Your task to perform on an android device: Search for Mexican restaurants on Maps Image 0: 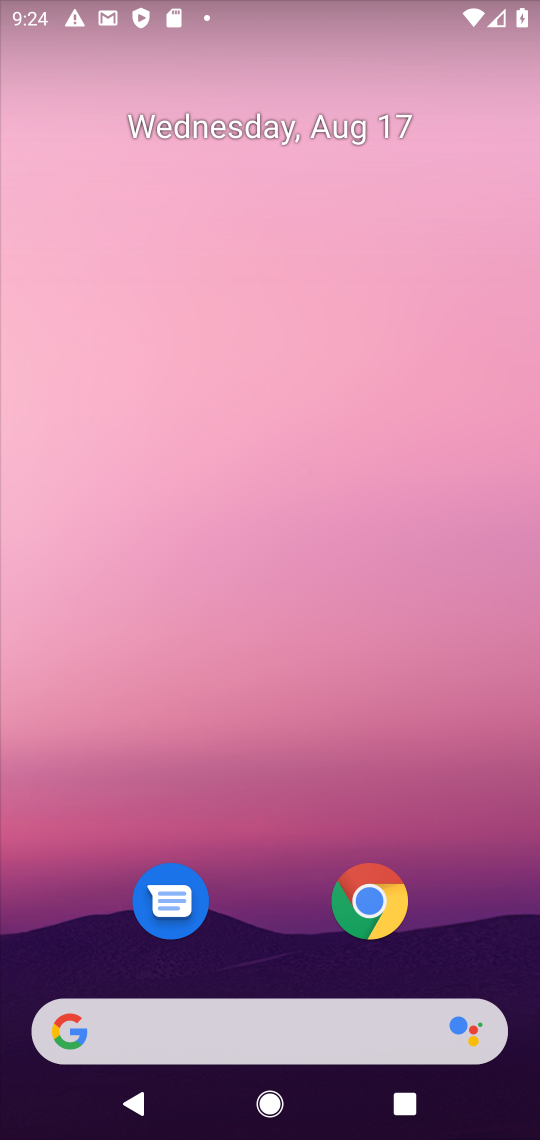
Step 0: drag from (265, 918) to (300, 254)
Your task to perform on an android device: Search for Mexican restaurants on Maps Image 1: 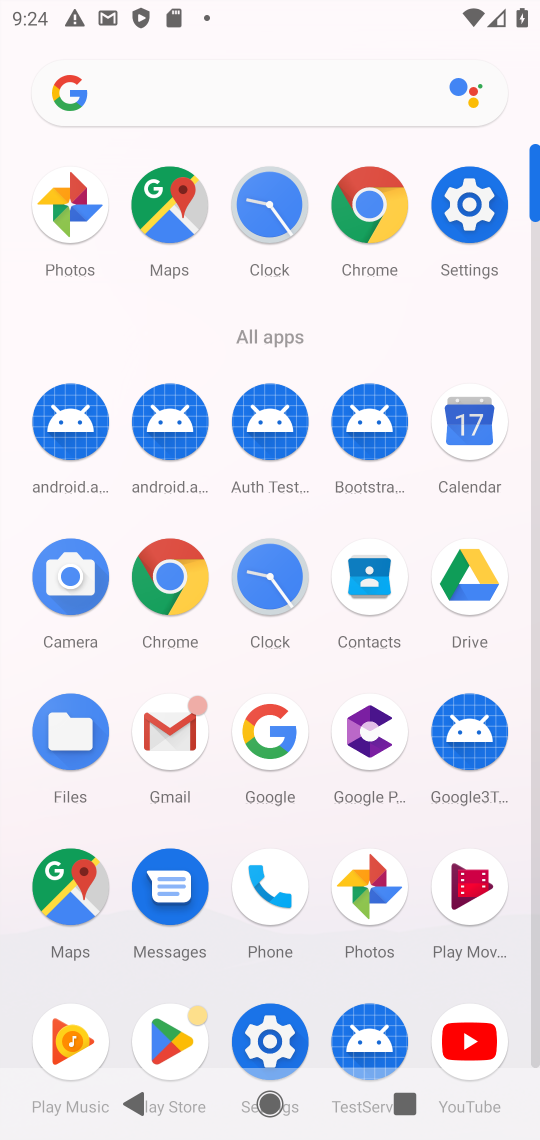
Step 1: click (169, 589)
Your task to perform on an android device: Search for Mexican restaurants on Maps Image 2: 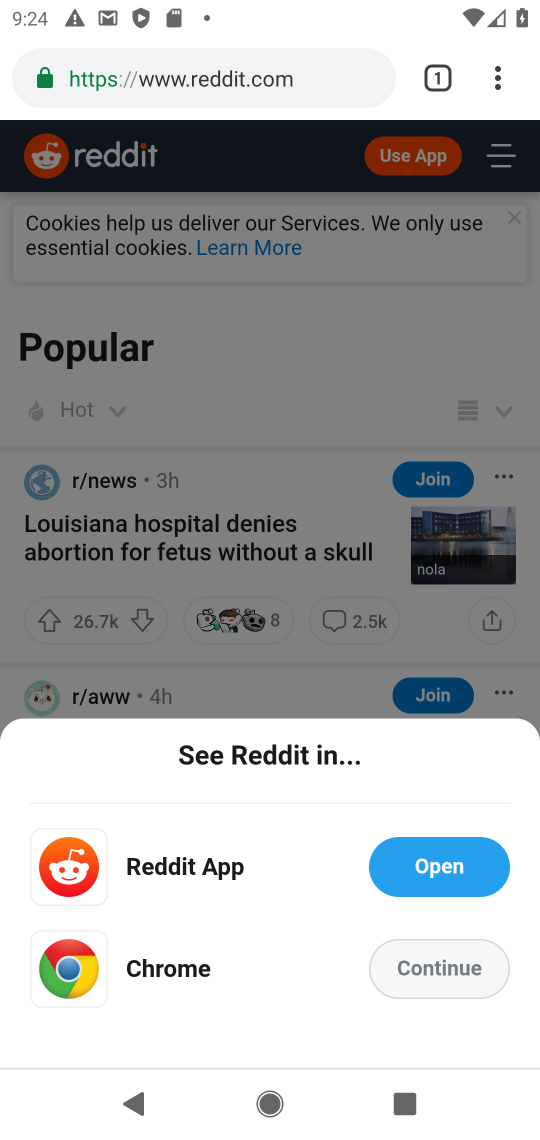
Step 2: press home button
Your task to perform on an android device: Search for Mexican restaurants on Maps Image 3: 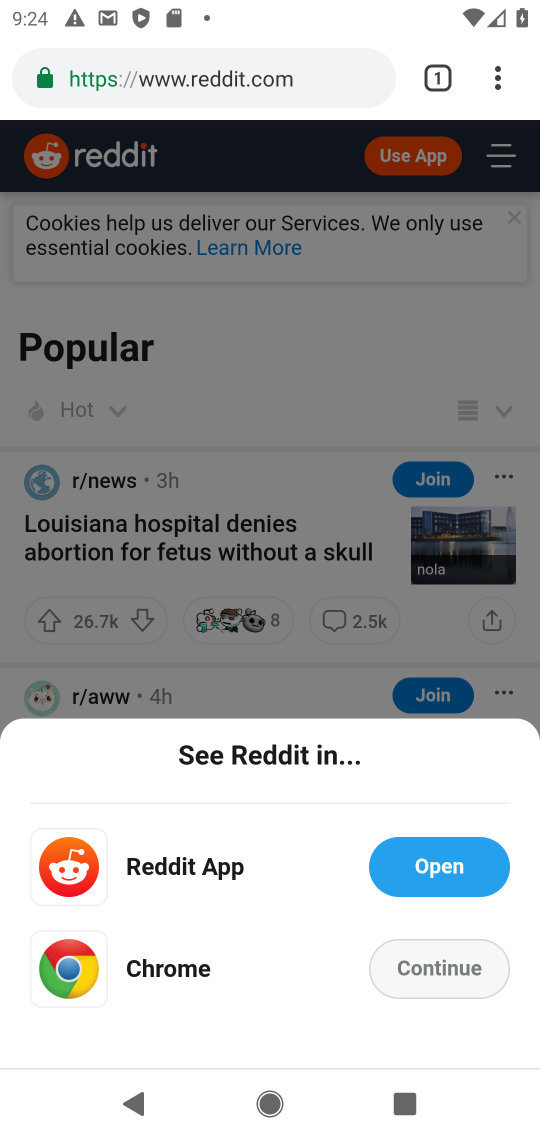
Step 3: press home button
Your task to perform on an android device: Search for Mexican restaurants on Maps Image 4: 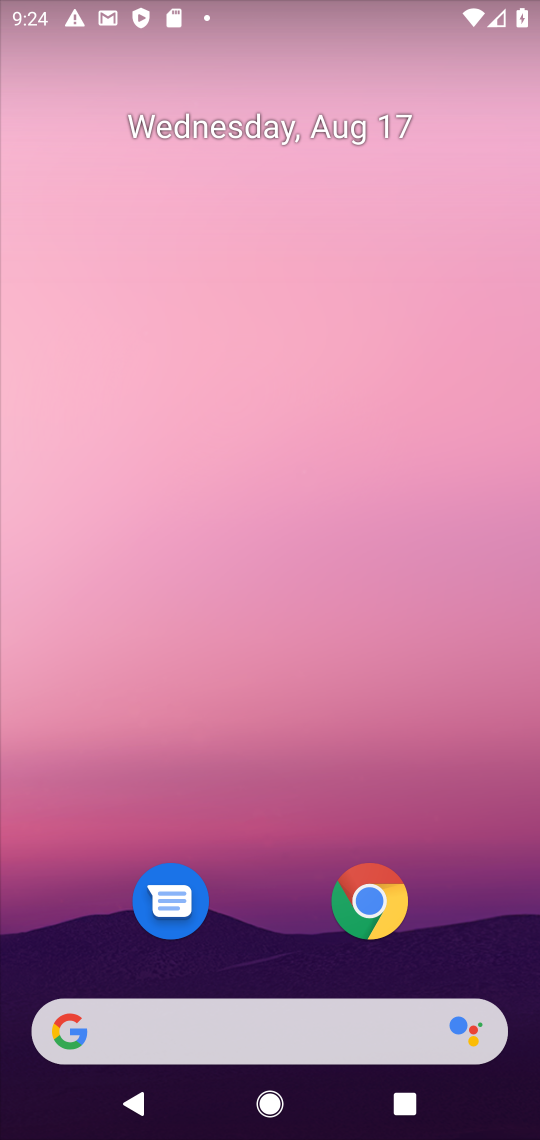
Step 4: press home button
Your task to perform on an android device: Search for Mexican restaurants on Maps Image 5: 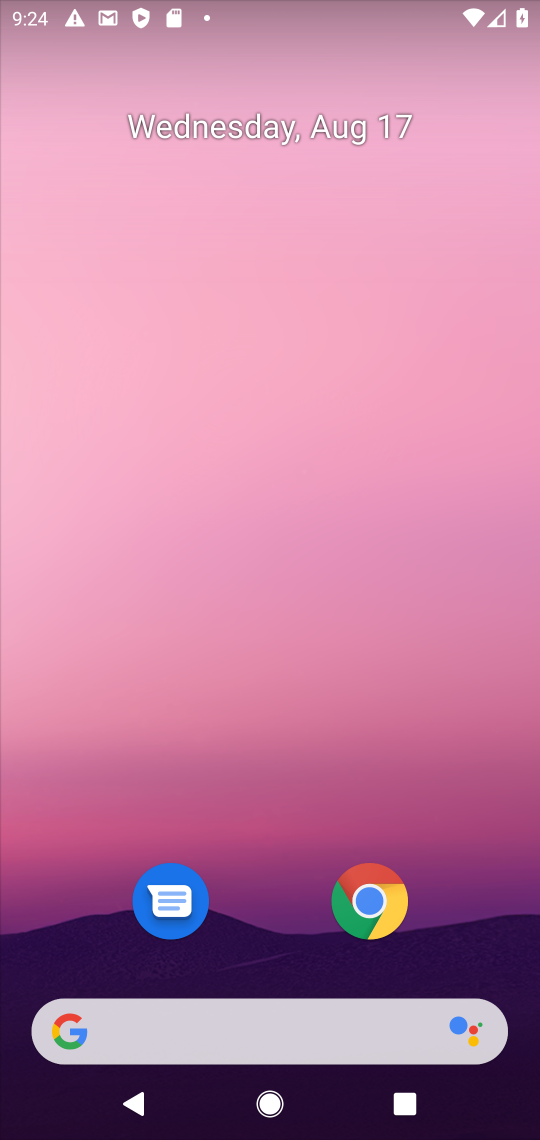
Step 5: drag from (263, 807) to (333, 48)
Your task to perform on an android device: Search for Mexican restaurants on Maps Image 6: 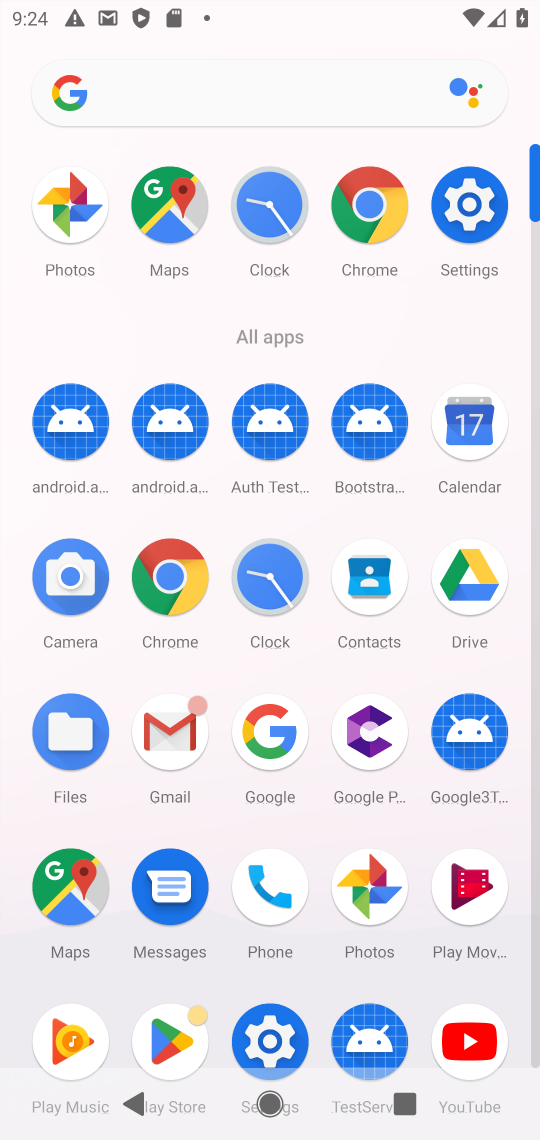
Step 6: click (63, 902)
Your task to perform on an android device: Search for Mexican restaurants on Maps Image 7: 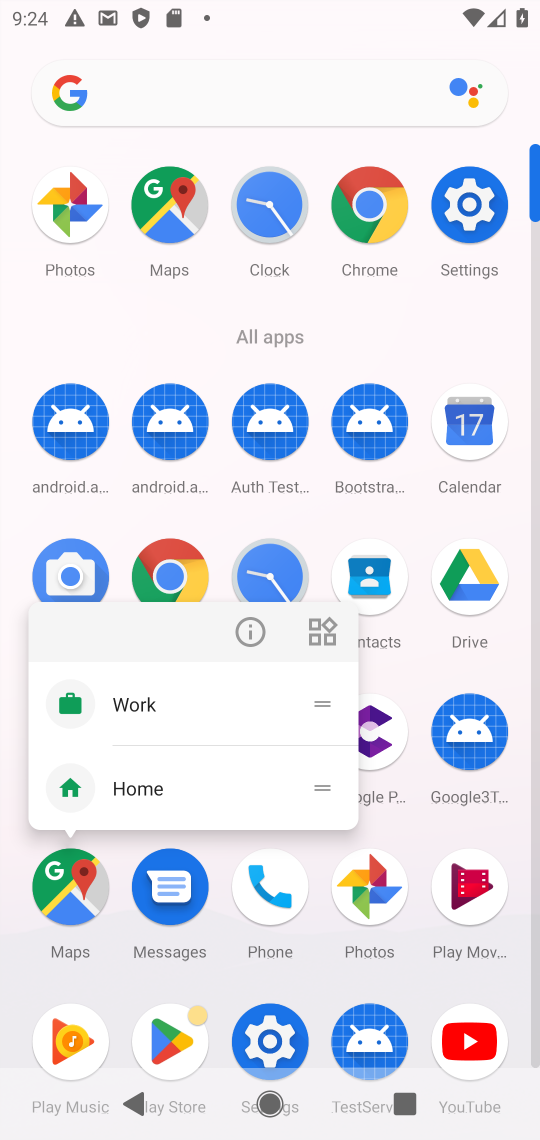
Step 7: click (79, 873)
Your task to perform on an android device: Search for Mexican restaurants on Maps Image 8: 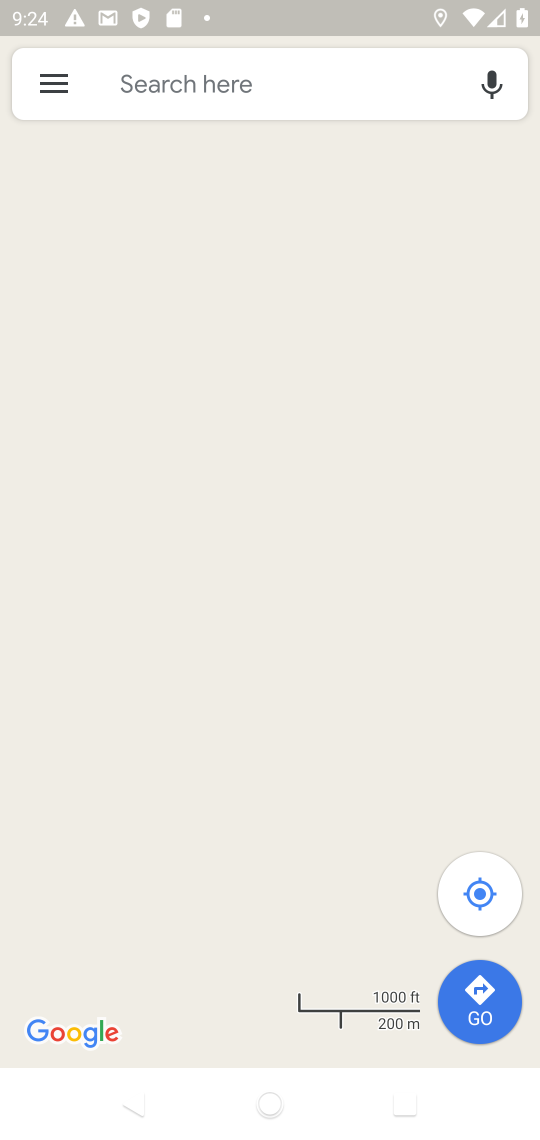
Step 8: click (296, 65)
Your task to perform on an android device: Search for Mexican restaurants on Maps Image 9: 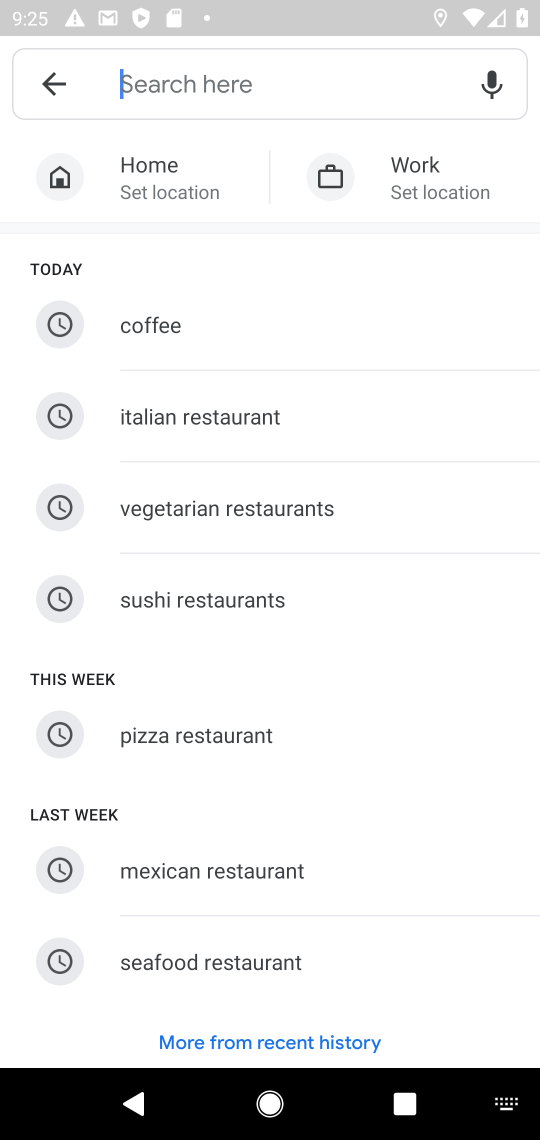
Step 9: type "Mexican restaurants"
Your task to perform on an android device: Search for Mexican restaurants on Maps Image 10: 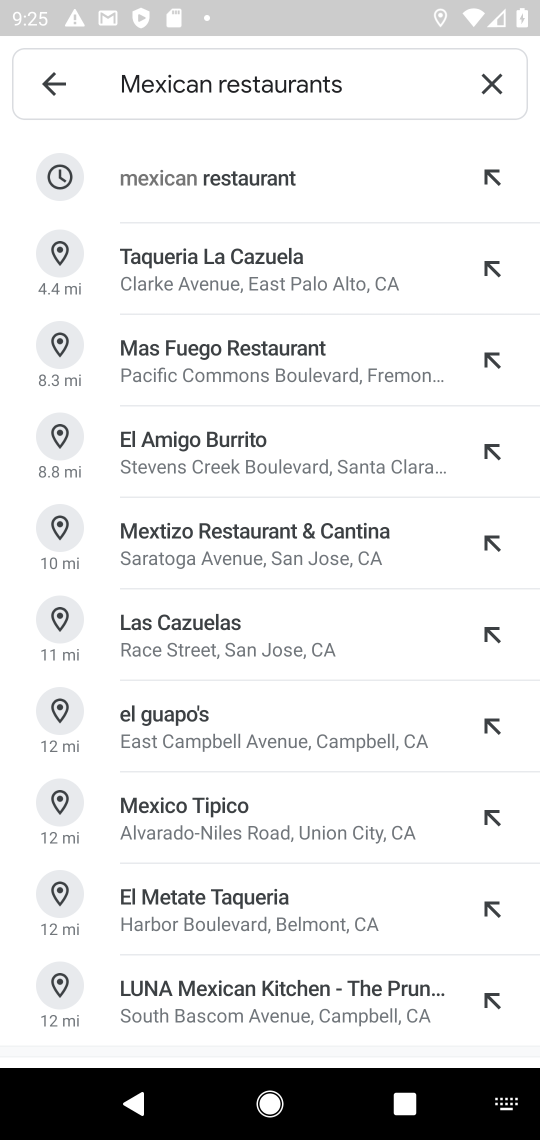
Step 10: press enter
Your task to perform on an android device: Search for Mexican restaurants on Maps Image 11: 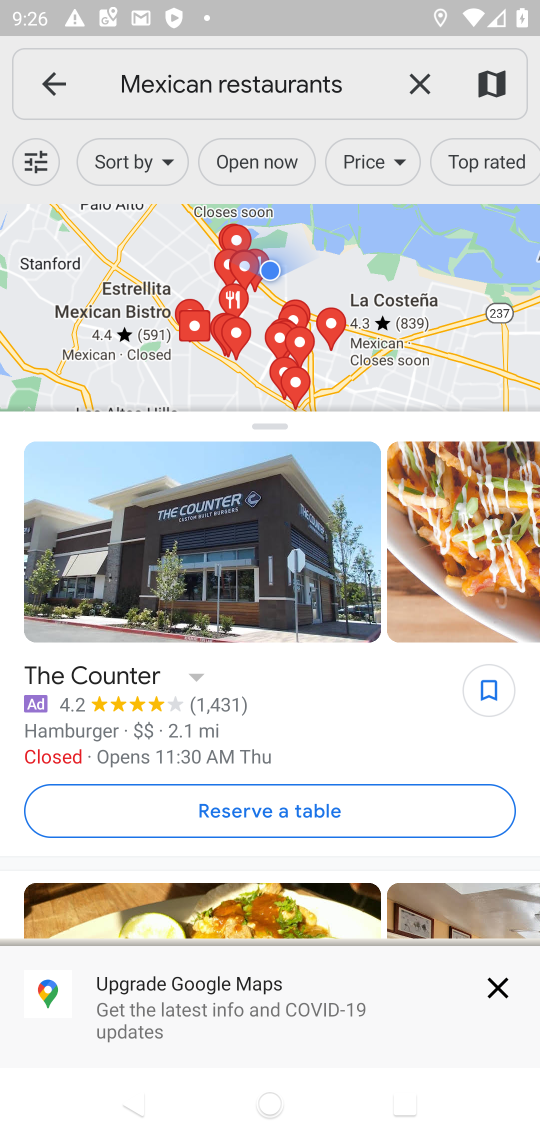
Step 11: task complete